Your task to perform on an android device: Turn on the flashlight Image 0: 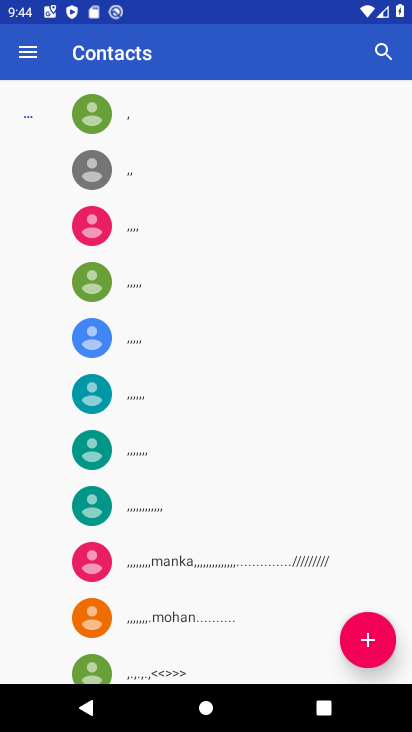
Step 0: press home button
Your task to perform on an android device: Turn on the flashlight Image 1: 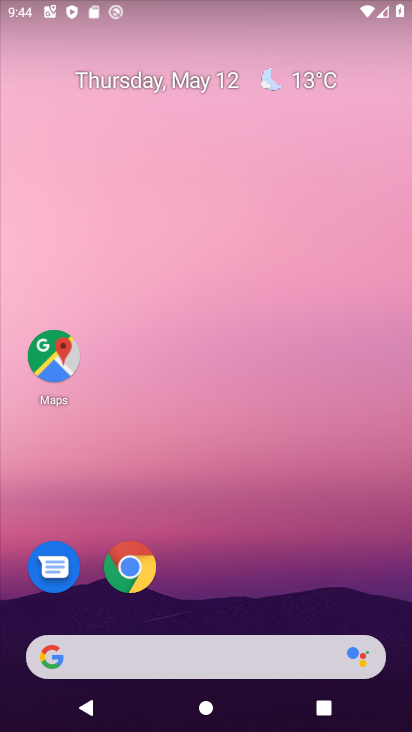
Step 1: drag from (280, 564) to (280, 105)
Your task to perform on an android device: Turn on the flashlight Image 2: 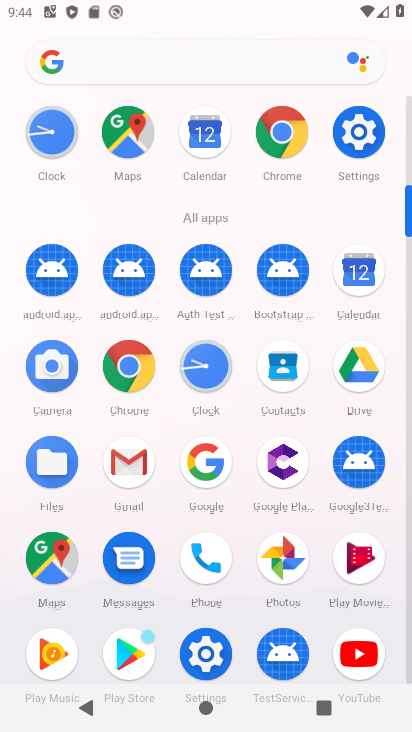
Step 2: click (352, 160)
Your task to perform on an android device: Turn on the flashlight Image 3: 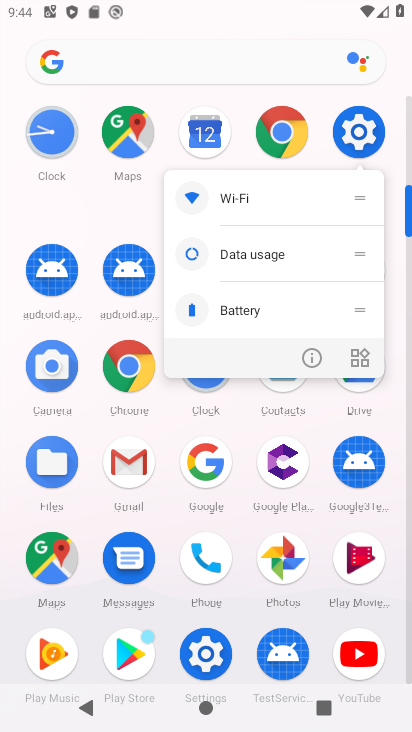
Step 3: click (363, 132)
Your task to perform on an android device: Turn on the flashlight Image 4: 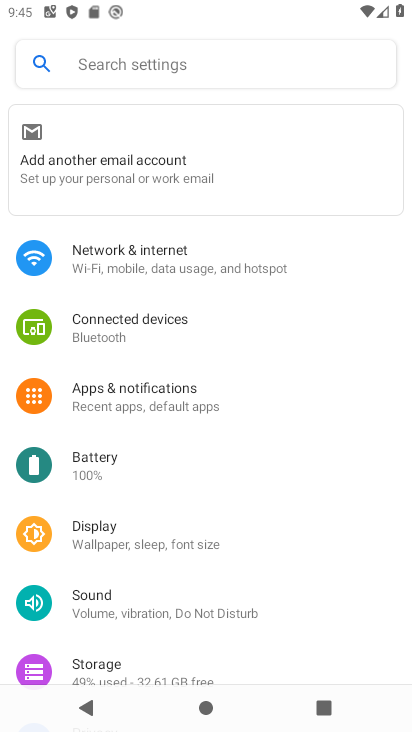
Step 4: click (313, 63)
Your task to perform on an android device: Turn on the flashlight Image 5: 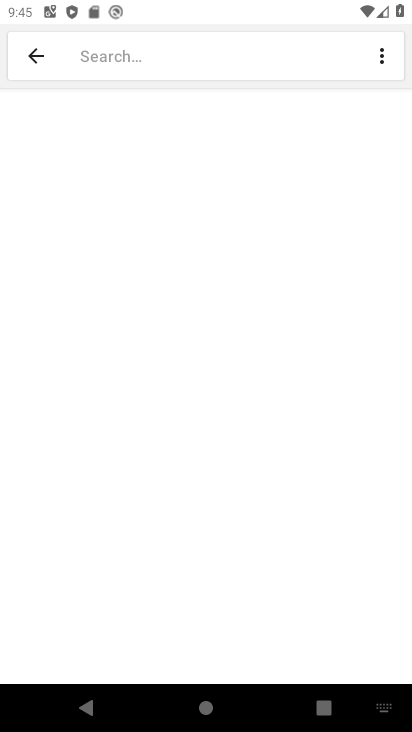
Step 5: type "flashlight"
Your task to perform on an android device: Turn on the flashlight Image 6: 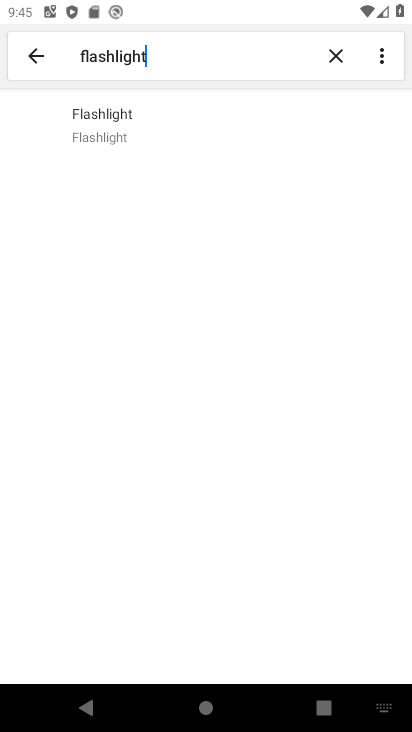
Step 6: click (149, 140)
Your task to perform on an android device: Turn on the flashlight Image 7: 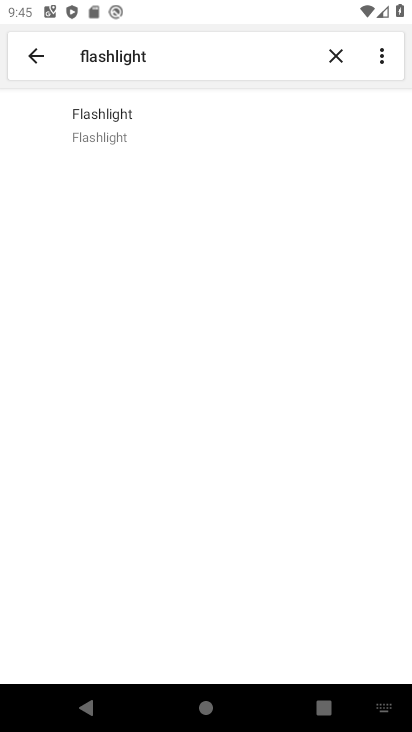
Step 7: click (187, 129)
Your task to perform on an android device: Turn on the flashlight Image 8: 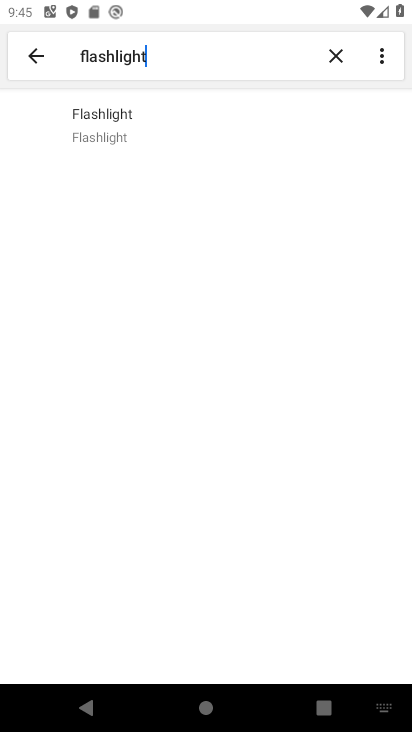
Step 8: task complete